Your task to perform on an android device: open sync settings in chrome Image 0: 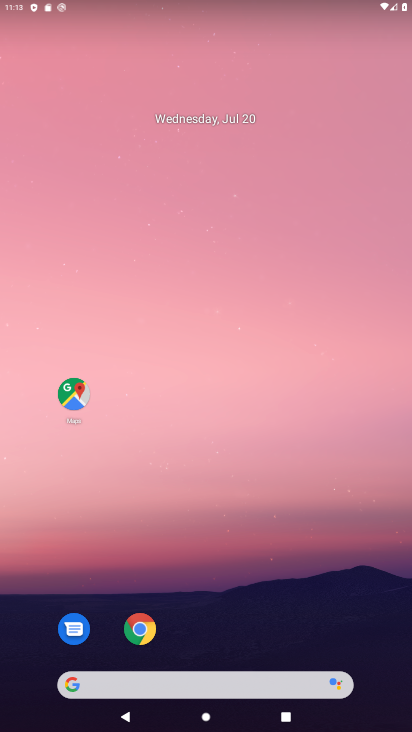
Step 0: drag from (172, 676) to (259, 258)
Your task to perform on an android device: open sync settings in chrome Image 1: 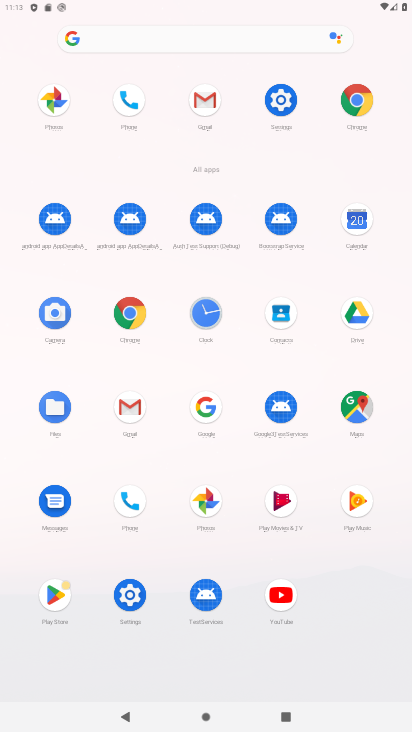
Step 1: click (117, 306)
Your task to perform on an android device: open sync settings in chrome Image 2: 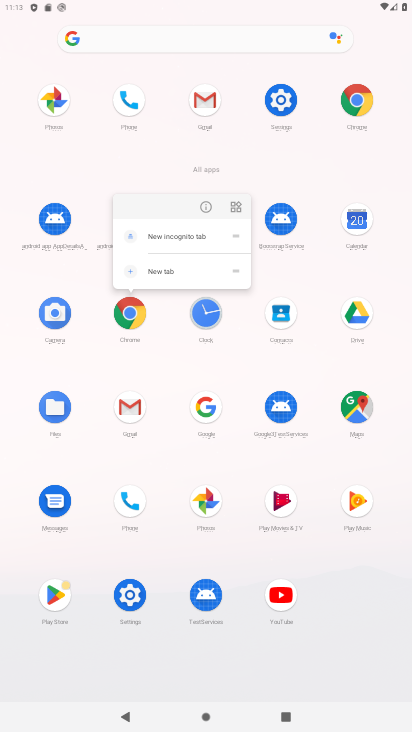
Step 2: click (134, 313)
Your task to perform on an android device: open sync settings in chrome Image 3: 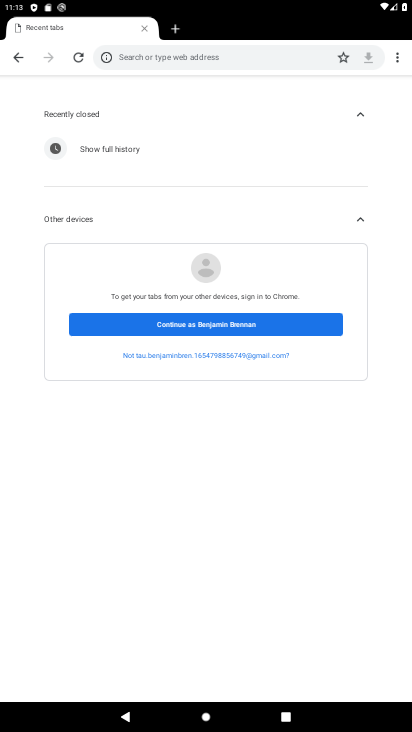
Step 3: drag from (391, 51) to (290, 263)
Your task to perform on an android device: open sync settings in chrome Image 4: 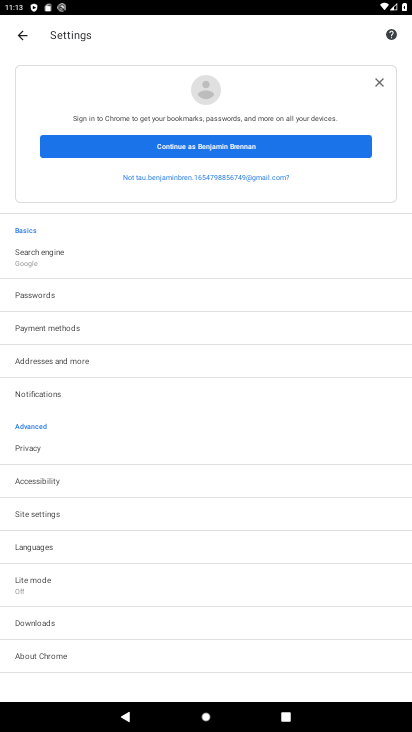
Step 4: click (51, 523)
Your task to perform on an android device: open sync settings in chrome Image 5: 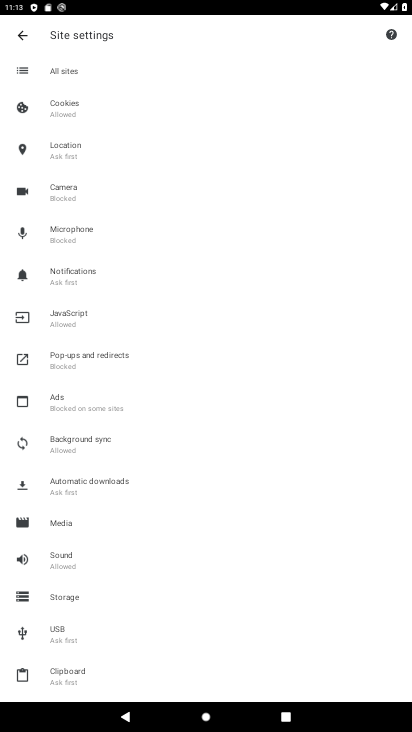
Step 5: click (96, 452)
Your task to perform on an android device: open sync settings in chrome Image 6: 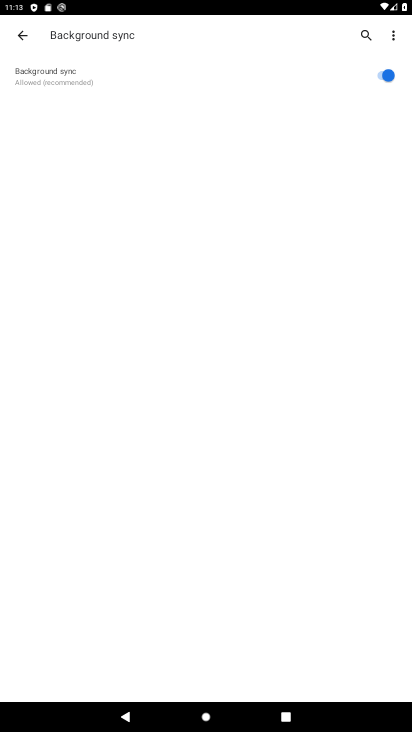
Step 6: task complete